Your task to perform on an android device: Open settings on Google Maps Image 0: 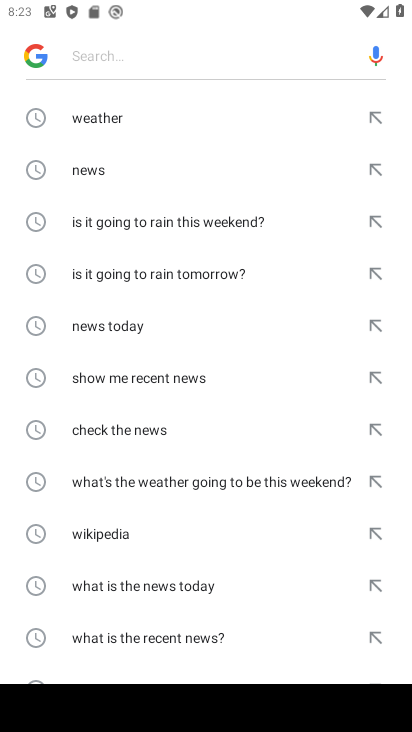
Step 0: press home button
Your task to perform on an android device: Open settings on Google Maps Image 1: 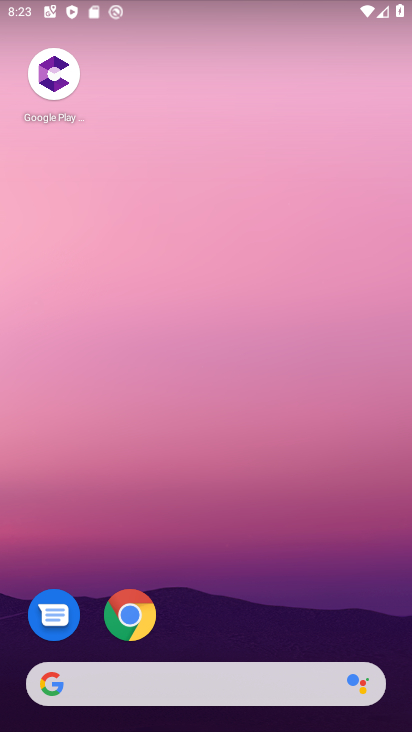
Step 1: drag from (217, 630) to (205, 249)
Your task to perform on an android device: Open settings on Google Maps Image 2: 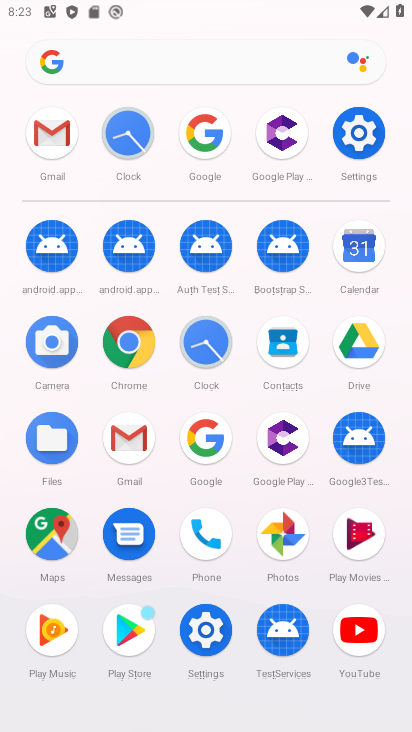
Step 2: click (58, 515)
Your task to perform on an android device: Open settings on Google Maps Image 3: 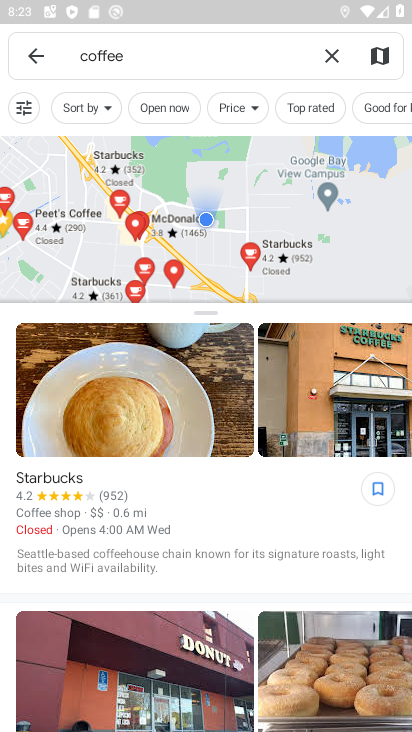
Step 3: click (32, 57)
Your task to perform on an android device: Open settings on Google Maps Image 4: 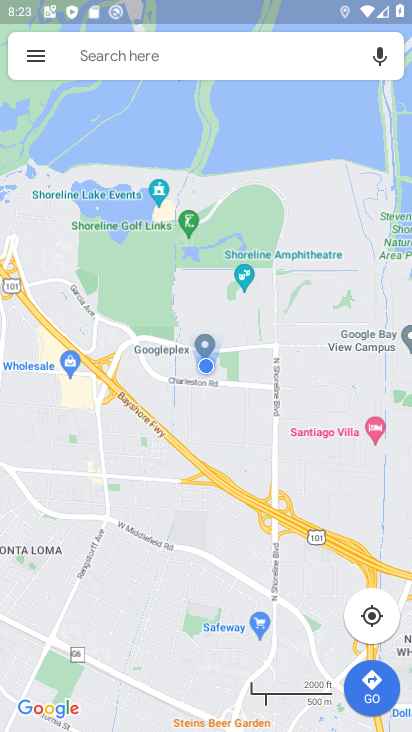
Step 4: click (32, 57)
Your task to perform on an android device: Open settings on Google Maps Image 5: 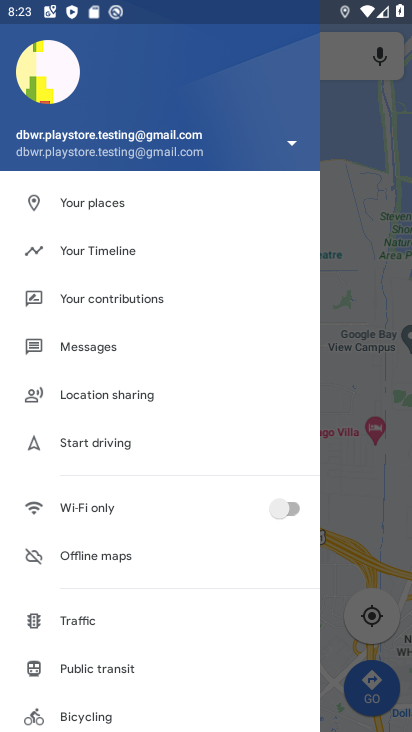
Step 5: drag from (186, 639) to (212, 344)
Your task to perform on an android device: Open settings on Google Maps Image 6: 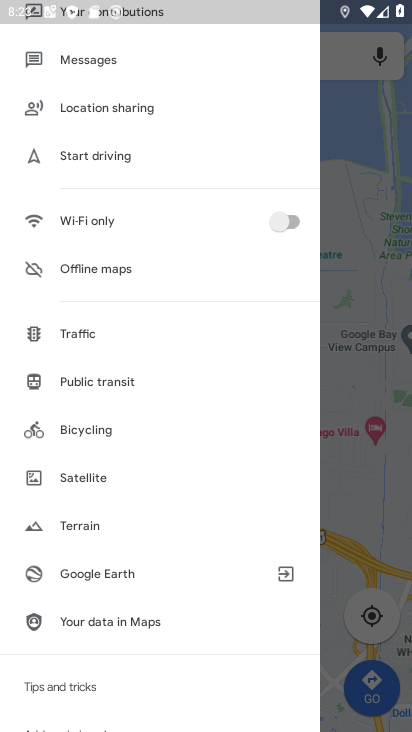
Step 6: drag from (122, 662) to (153, 449)
Your task to perform on an android device: Open settings on Google Maps Image 7: 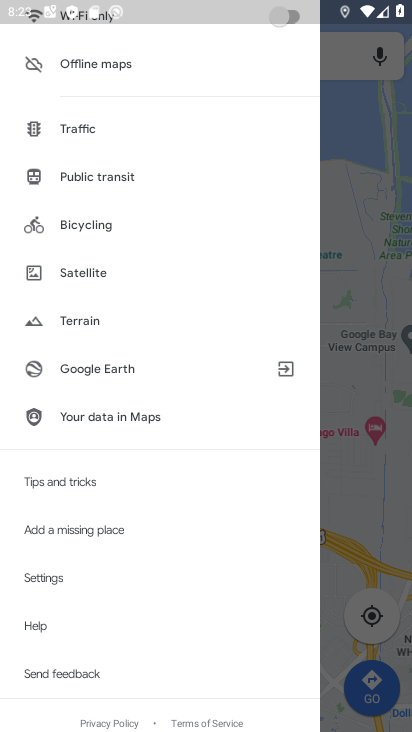
Step 7: drag from (122, 627) to (133, 386)
Your task to perform on an android device: Open settings on Google Maps Image 8: 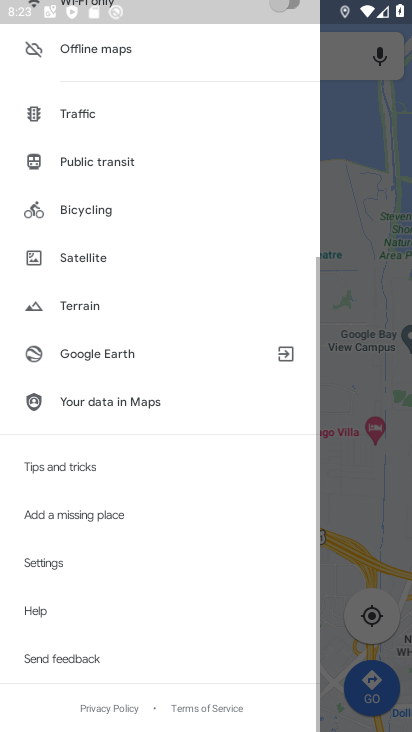
Step 8: click (63, 560)
Your task to perform on an android device: Open settings on Google Maps Image 9: 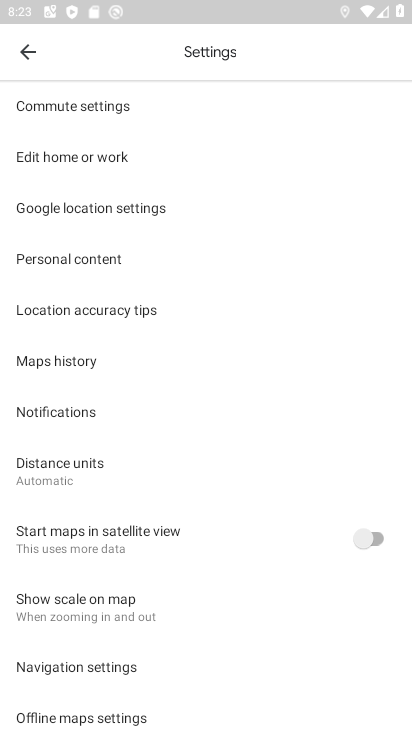
Step 9: task complete